Your task to perform on an android device: delete a single message in the gmail app Image 0: 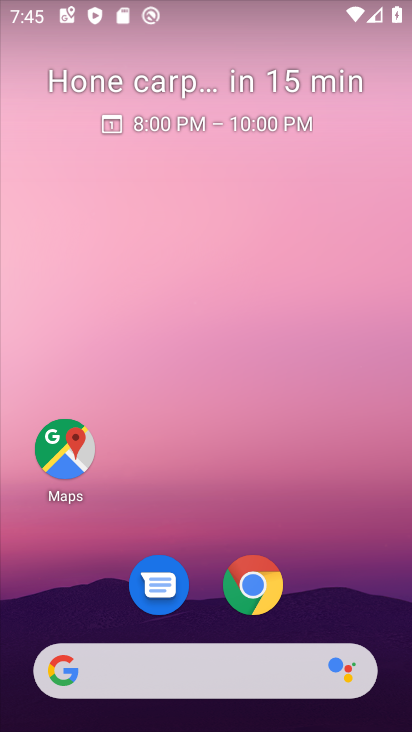
Step 0: drag from (370, 467) to (376, 118)
Your task to perform on an android device: delete a single message in the gmail app Image 1: 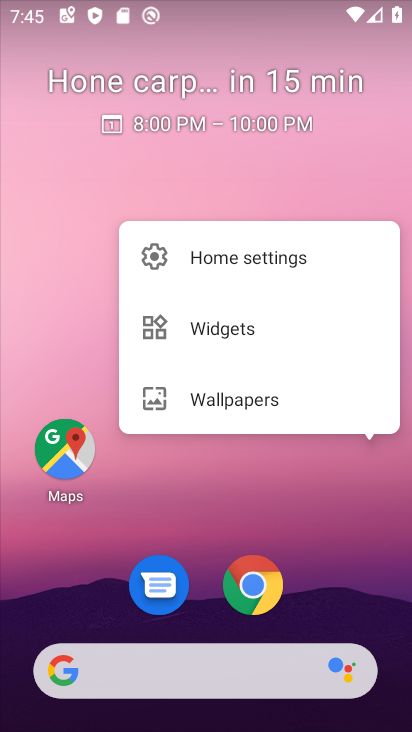
Step 1: click (376, 118)
Your task to perform on an android device: delete a single message in the gmail app Image 2: 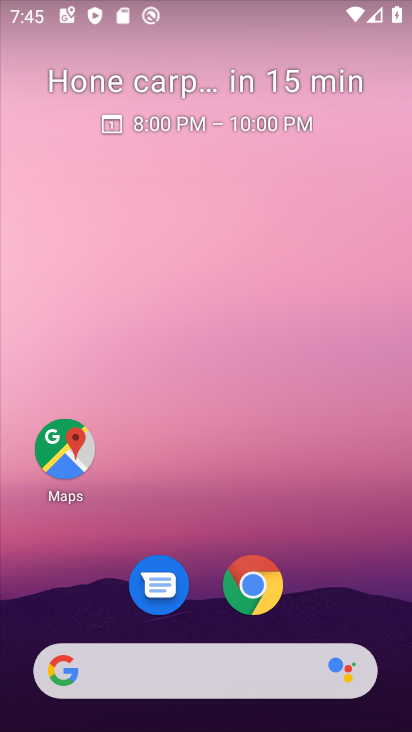
Step 2: drag from (265, 497) to (283, 22)
Your task to perform on an android device: delete a single message in the gmail app Image 3: 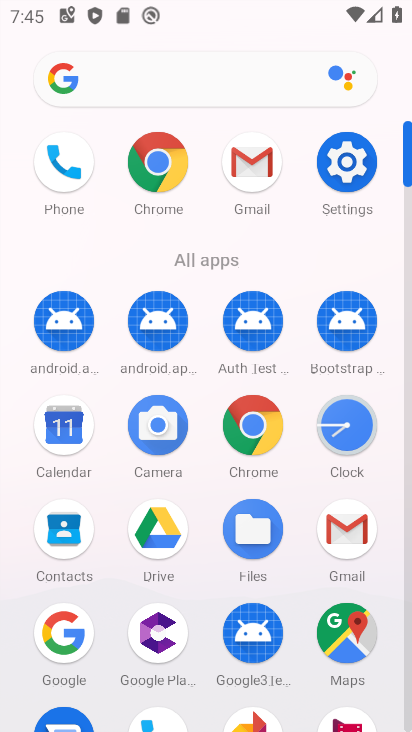
Step 3: click (259, 153)
Your task to perform on an android device: delete a single message in the gmail app Image 4: 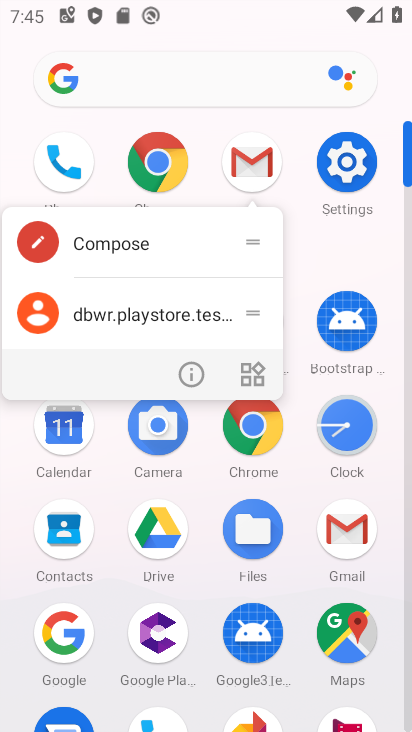
Step 4: click (259, 155)
Your task to perform on an android device: delete a single message in the gmail app Image 5: 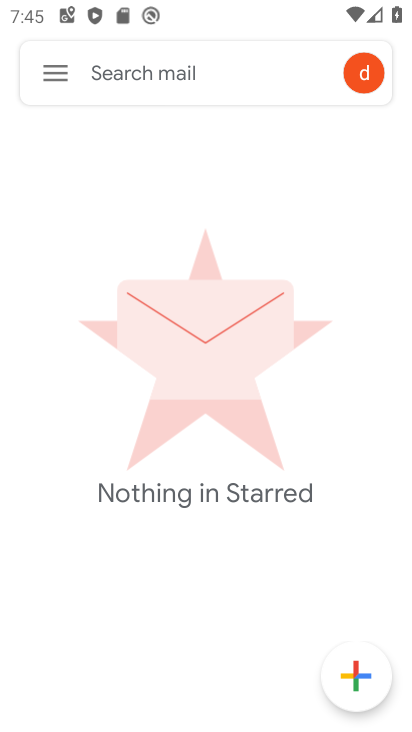
Step 5: click (56, 71)
Your task to perform on an android device: delete a single message in the gmail app Image 6: 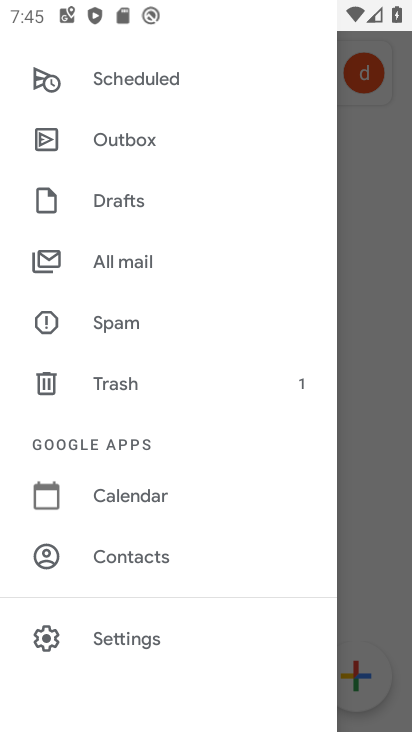
Step 6: click (125, 257)
Your task to perform on an android device: delete a single message in the gmail app Image 7: 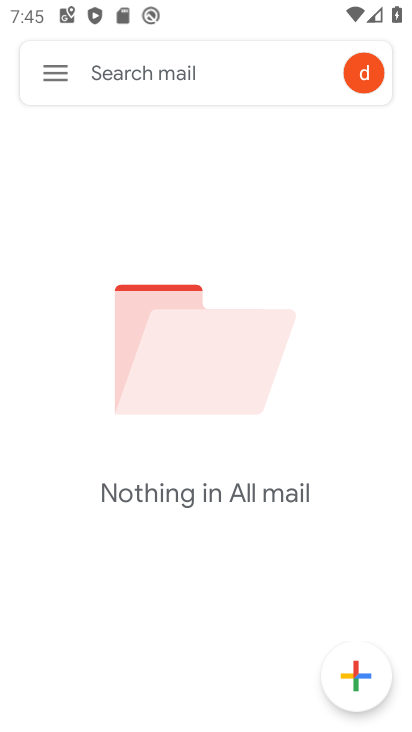
Step 7: task complete